Your task to perform on an android device: open chrome privacy settings Image 0: 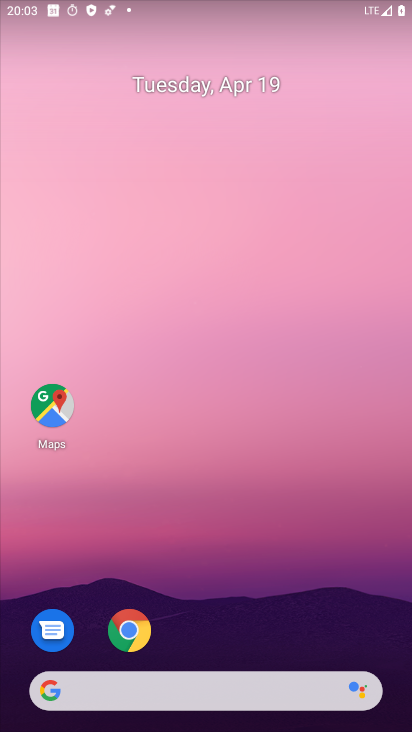
Step 0: click (121, 618)
Your task to perform on an android device: open chrome privacy settings Image 1: 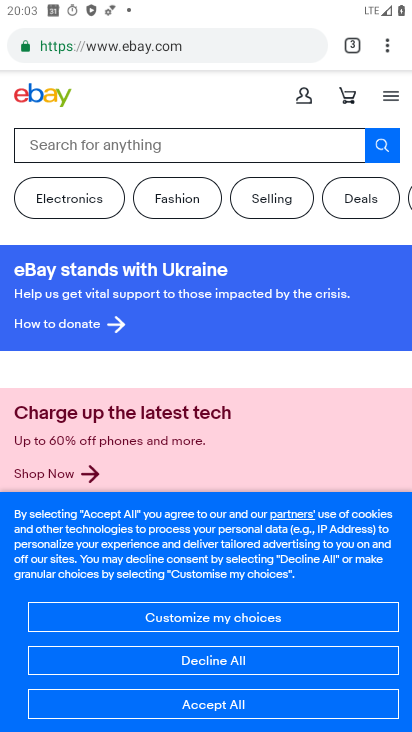
Step 1: click (385, 39)
Your task to perform on an android device: open chrome privacy settings Image 2: 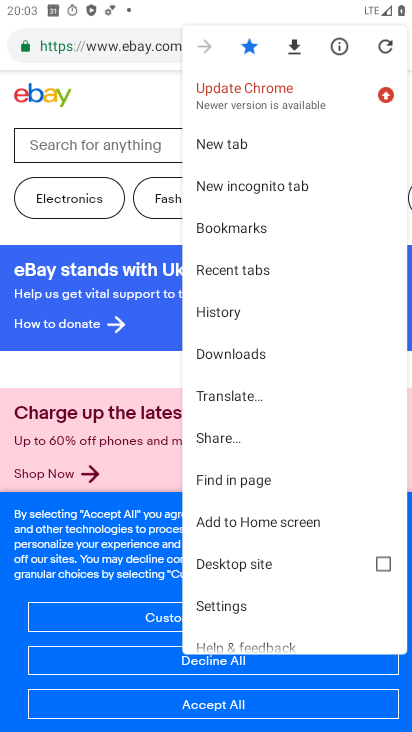
Step 2: click (227, 599)
Your task to perform on an android device: open chrome privacy settings Image 3: 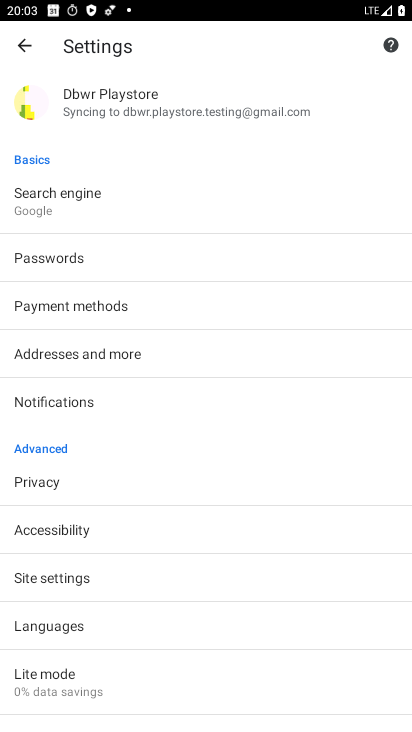
Step 3: click (31, 472)
Your task to perform on an android device: open chrome privacy settings Image 4: 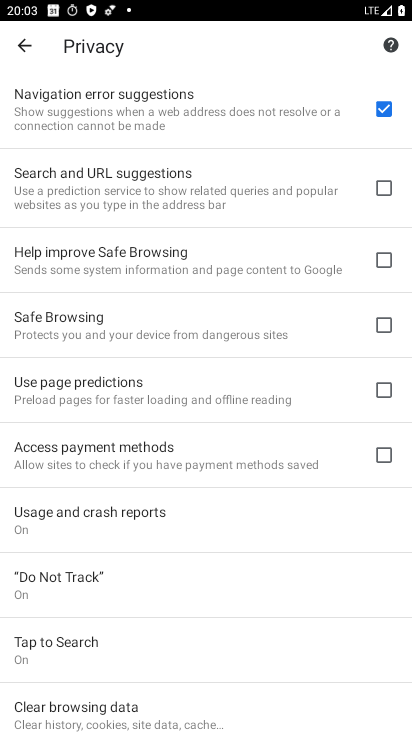
Step 4: task complete